Your task to perform on an android device: Go to display settings Image 0: 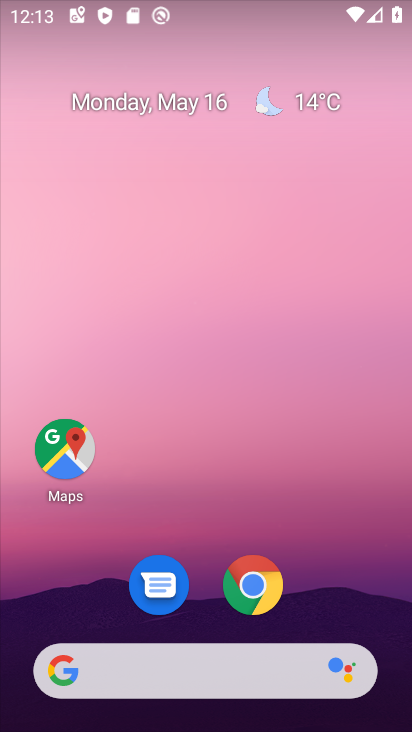
Step 0: drag from (199, 536) to (272, 25)
Your task to perform on an android device: Go to display settings Image 1: 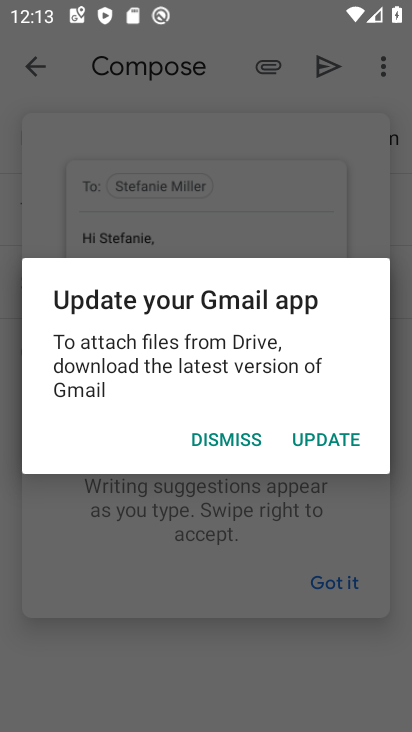
Step 1: click (251, 149)
Your task to perform on an android device: Go to display settings Image 2: 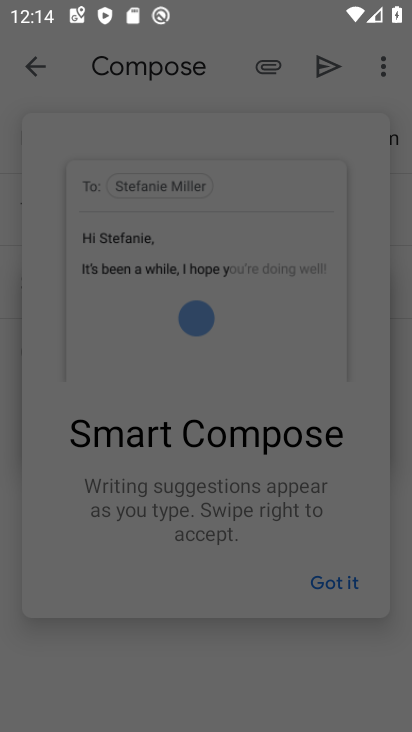
Step 2: press home button
Your task to perform on an android device: Go to display settings Image 3: 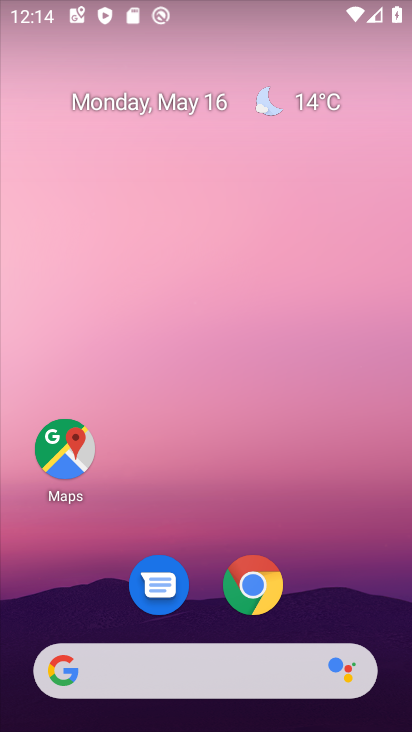
Step 3: drag from (212, 529) to (245, 8)
Your task to perform on an android device: Go to display settings Image 4: 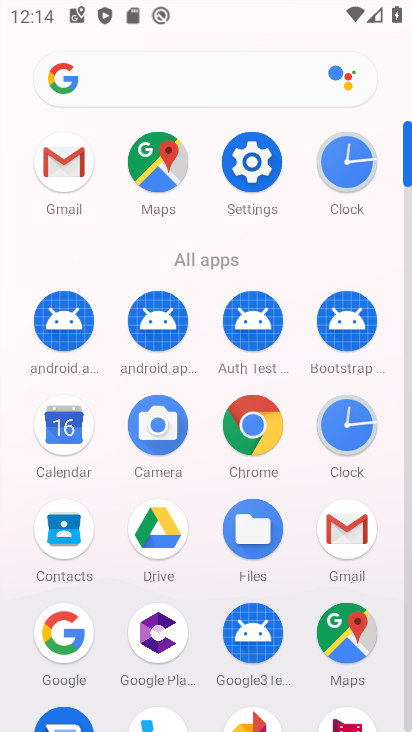
Step 4: click (259, 145)
Your task to perform on an android device: Go to display settings Image 5: 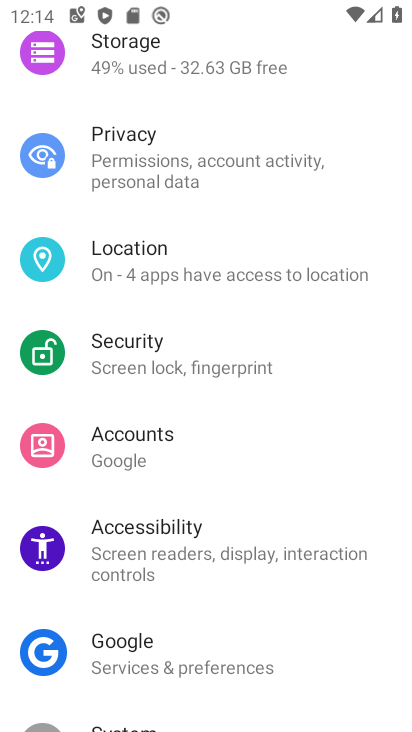
Step 5: drag from (236, 215) to (229, 704)
Your task to perform on an android device: Go to display settings Image 6: 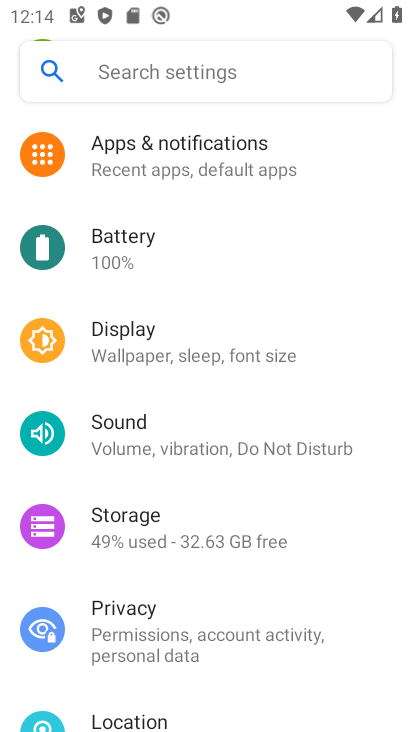
Step 6: click (228, 343)
Your task to perform on an android device: Go to display settings Image 7: 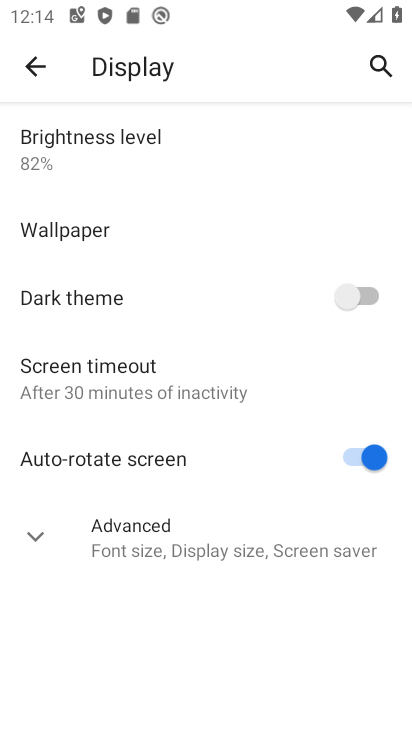
Step 7: task complete